Your task to perform on an android device: What's the weather going to be this weekend? Image 0: 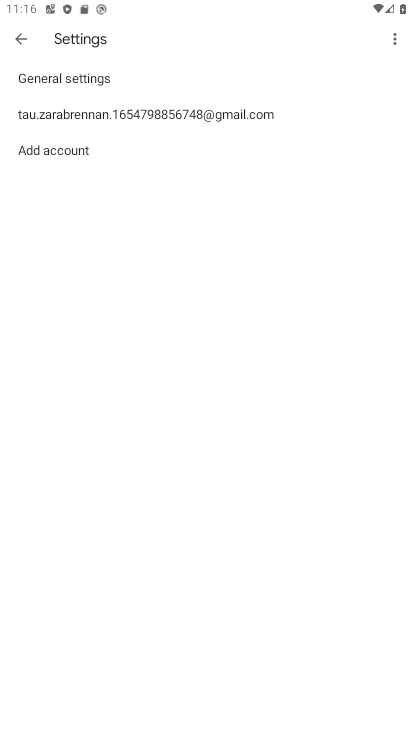
Step 0: press home button
Your task to perform on an android device: What's the weather going to be this weekend? Image 1: 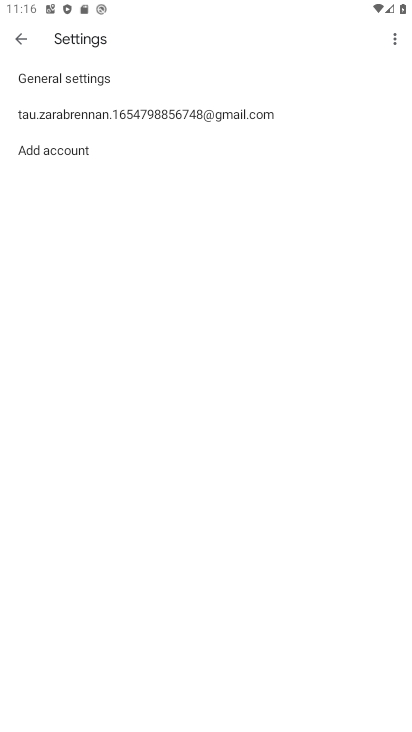
Step 1: press home button
Your task to perform on an android device: What's the weather going to be this weekend? Image 2: 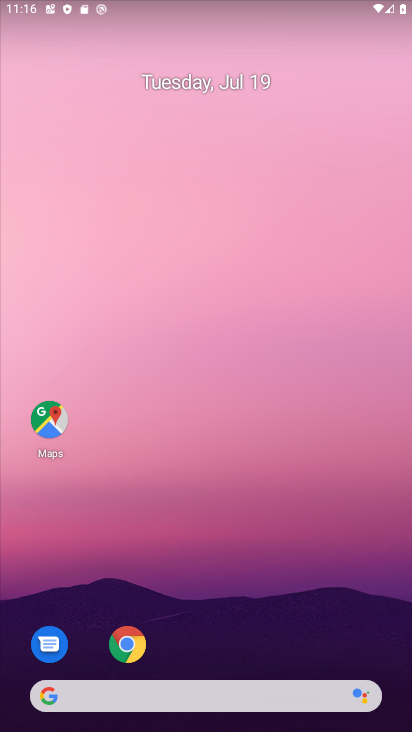
Step 2: click (116, 647)
Your task to perform on an android device: What's the weather going to be this weekend? Image 3: 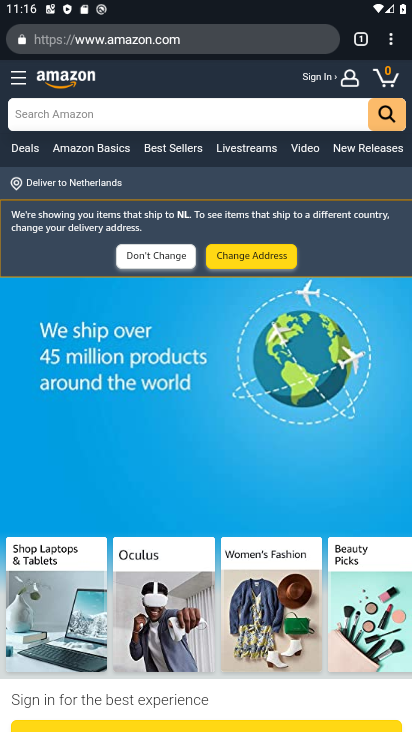
Step 3: click (125, 37)
Your task to perform on an android device: What's the weather going to be this weekend? Image 4: 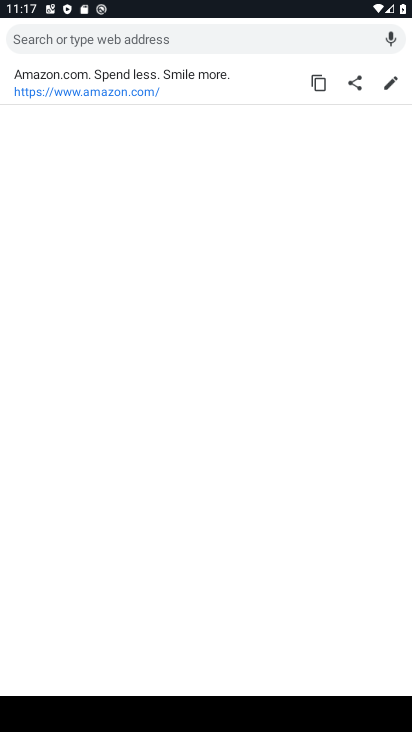
Step 4: type "What's the weather going to be this weekend?"
Your task to perform on an android device: What's the weather going to be this weekend? Image 5: 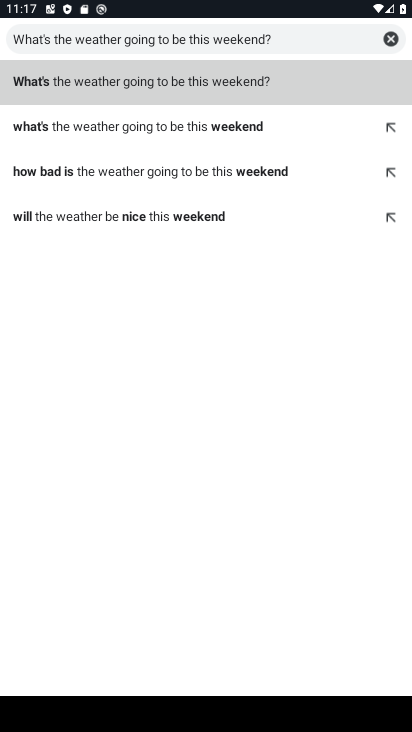
Step 5: click (142, 84)
Your task to perform on an android device: What's the weather going to be this weekend? Image 6: 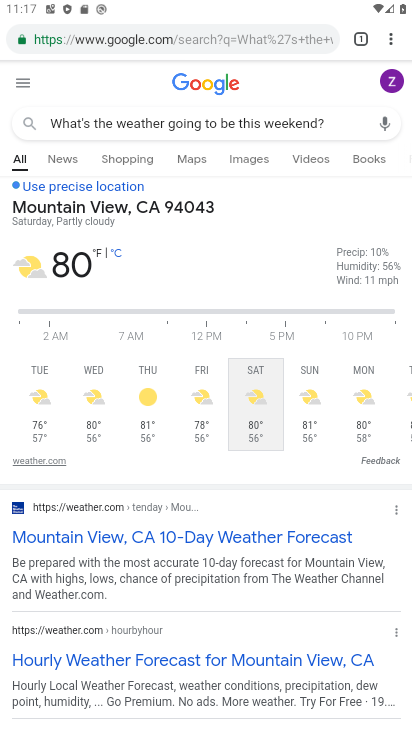
Step 6: task complete